Your task to perform on an android device: turn off priority inbox in the gmail app Image 0: 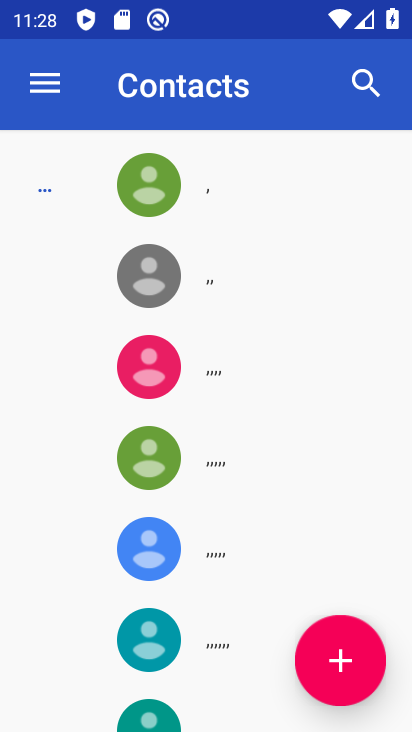
Step 0: press home button
Your task to perform on an android device: turn off priority inbox in the gmail app Image 1: 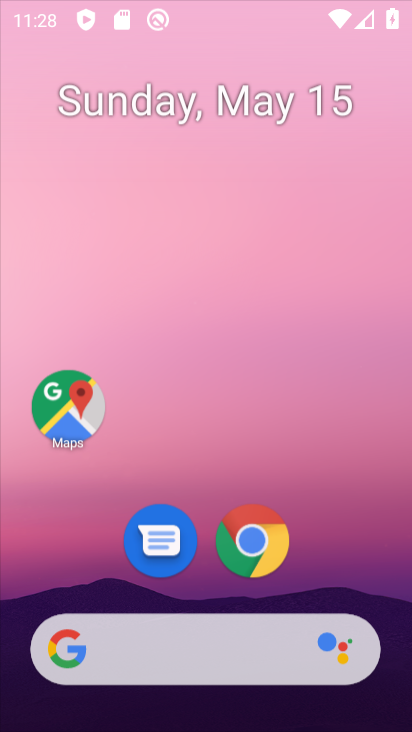
Step 1: press home button
Your task to perform on an android device: turn off priority inbox in the gmail app Image 2: 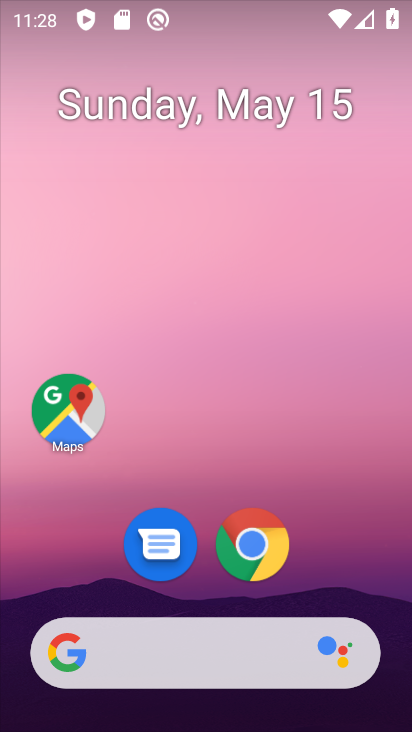
Step 2: drag from (370, 528) to (273, 182)
Your task to perform on an android device: turn off priority inbox in the gmail app Image 3: 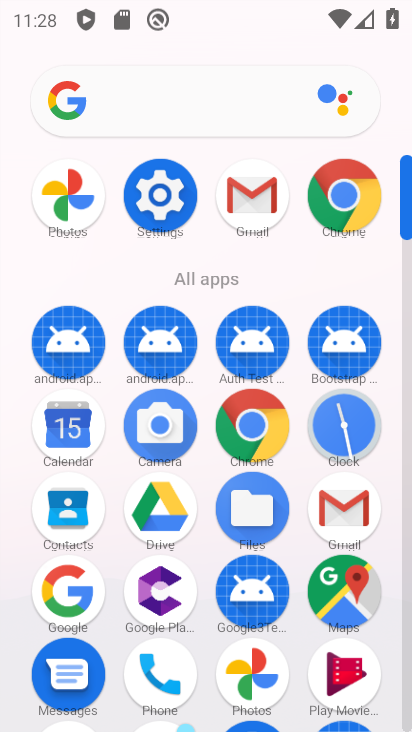
Step 3: click (267, 200)
Your task to perform on an android device: turn off priority inbox in the gmail app Image 4: 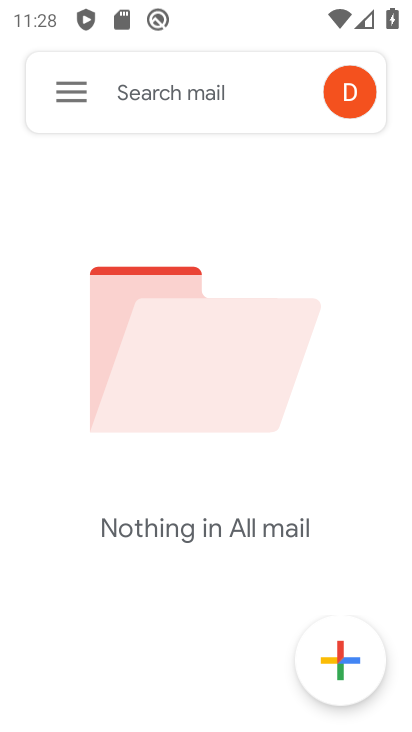
Step 4: click (68, 93)
Your task to perform on an android device: turn off priority inbox in the gmail app Image 5: 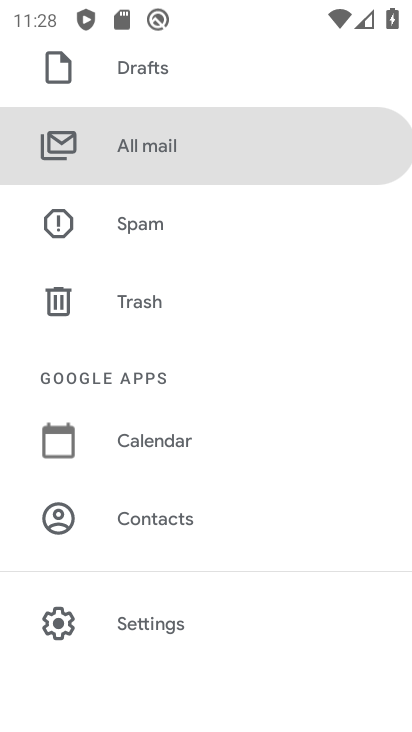
Step 5: click (196, 618)
Your task to perform on an android device: turn off priority inbox in the gmail app Image 6: 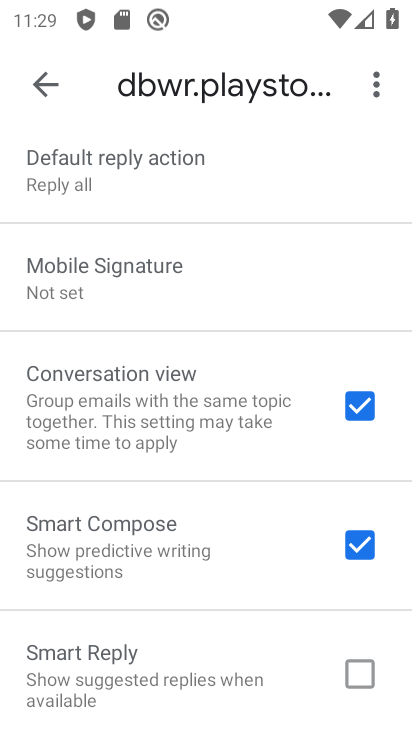
Step 6: drag from (232, 201) to (232, 701)
Your task to perform on an android device: turn off priority inbox in the gmail app Image 7: 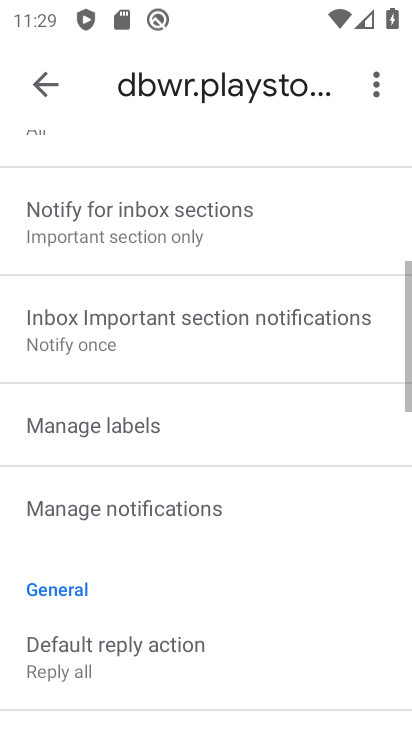
Step 7: drag from (214, 348) to (234, 654)
Your task to perform on an android device: turn off priority inbox in the gmail app Image 8: 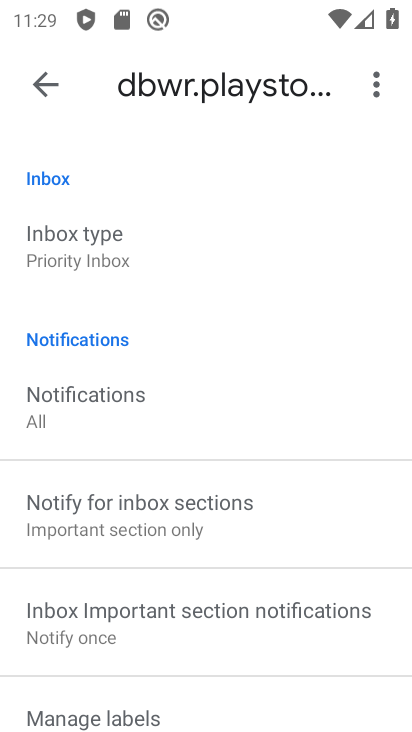
Step 8: click (183, 255)
Your task to perform on an android device: turn off priority inbox in the gmail app Image 9: 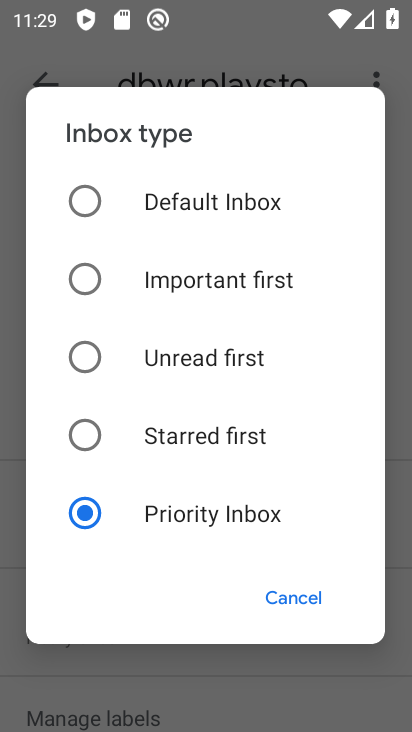
Step 9: click (207, 223)
Your task to perform on an android device: turn off priority inbox in the gmail app Image 10: 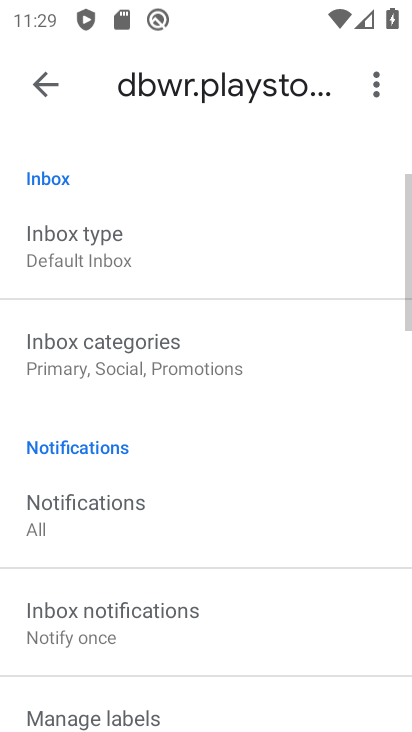
Step 10: task complete